Your task to perform on an android device: turn on bluetooth scan Image 0: 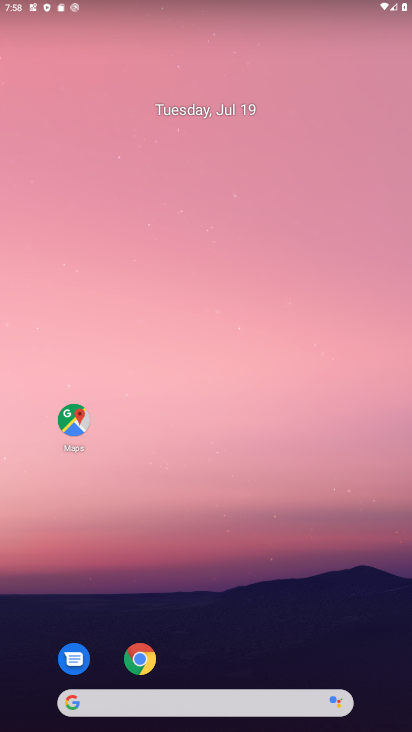
Step 0: drag from (131, 668) to (250, 265)
Your task to perform on an android device: turn on bluetooth scan Image 1: 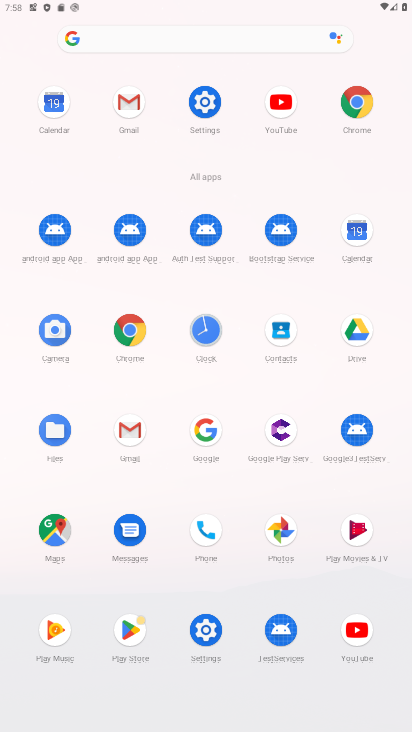
Step 1: click (203, 108)
Your task to perform on an android device: turn on bluetooth scan Image 2: 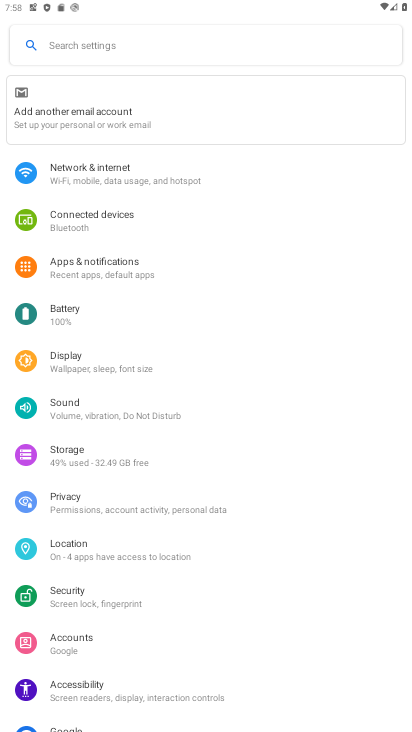
Step 2: click (79, 555)
Your task to perform on an android device: turn on bluetooth scan Image 3: 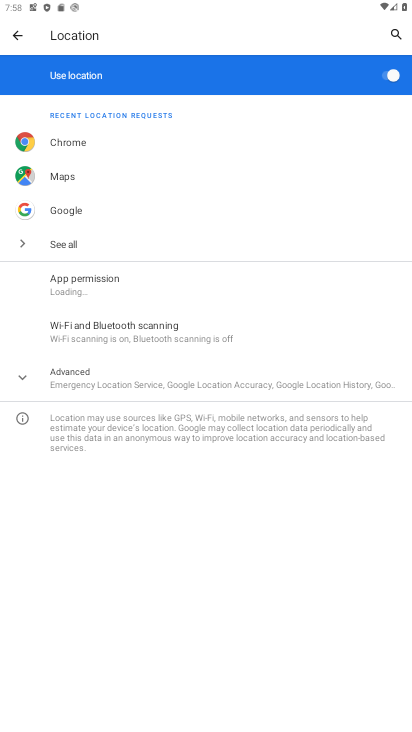
Step 3: click (96, 329)
Your task to perform on an android device: turn on bluetooth scan Image 4: 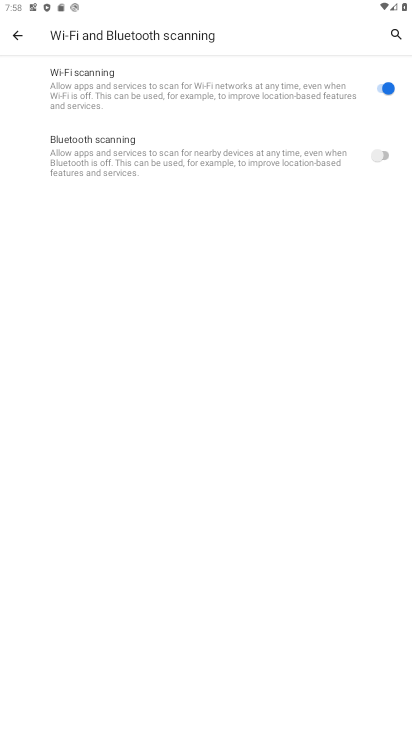
Step 4: click (386, 154)
Your task to perform on an android device: turn on bluetooth scan Image 5: 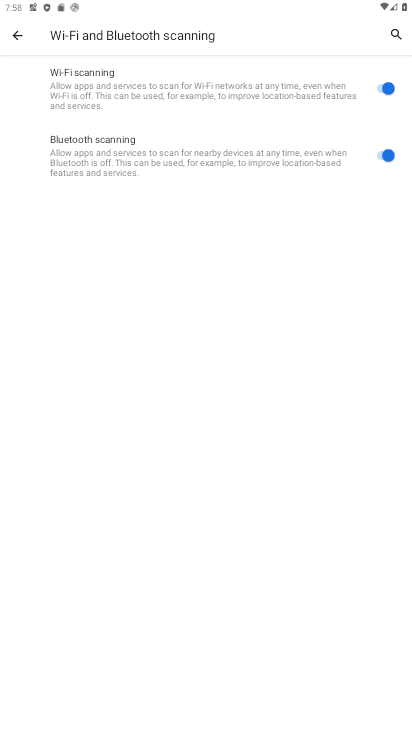
Step 5: task complete